Your task to perform on an android device: turn pop-ups off in chrome Image 0: 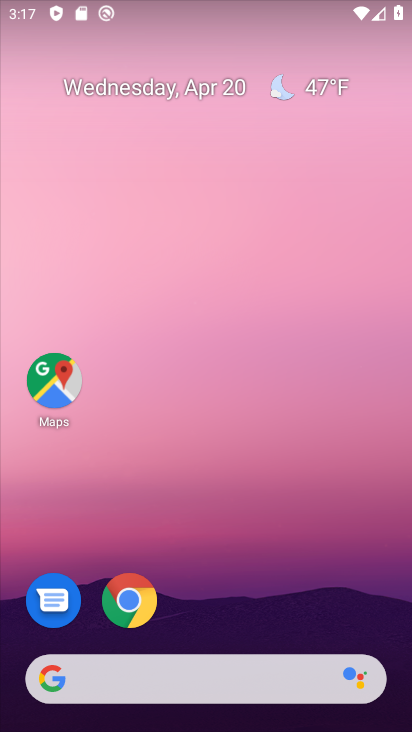
Step 0: drag from (317, 564) to (398, 97)
Your task to perform on an android device: turn pop-ups off in chrome Image 1: 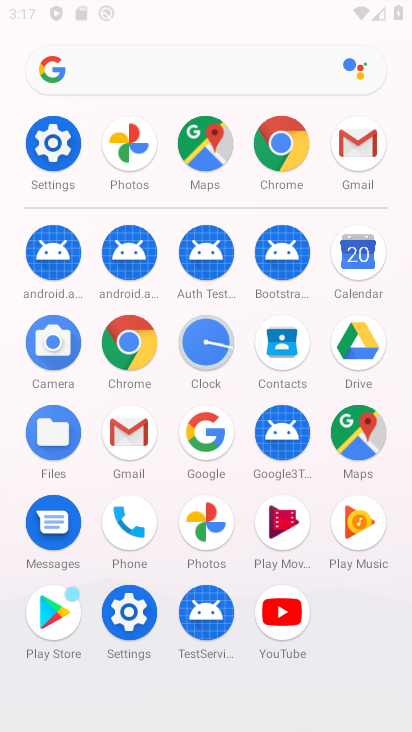
Step 1: click (287, 147)
Your task to perform on an android device: turn pop-ups off in chrome Image 2: 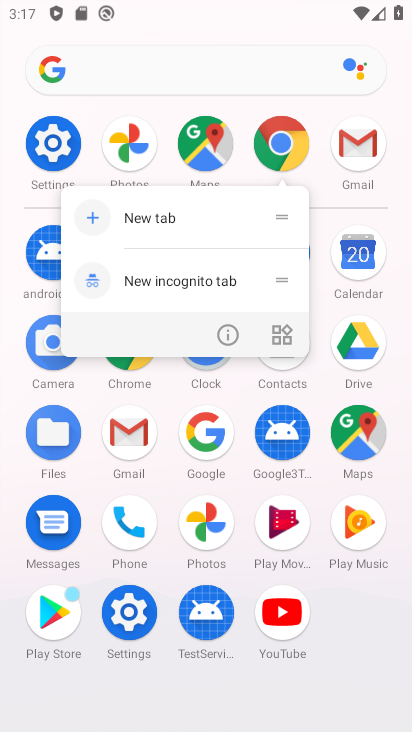
Step 2: click (279, 144)
Your task to perform on an android device: turn pop-ups off in chrome Image 3: 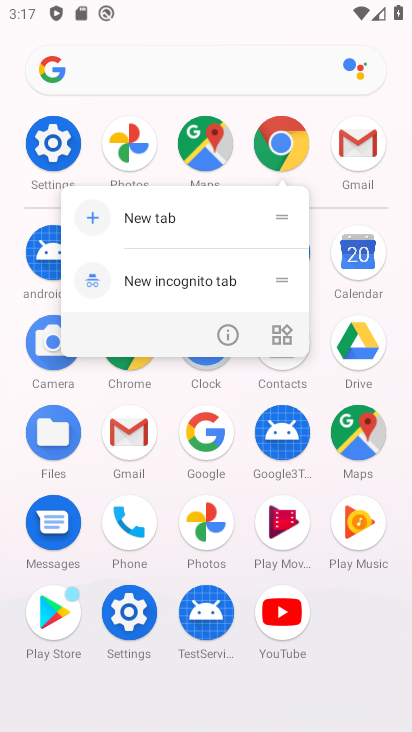
Step 3: click (280, 144)
Your task to perform on an android device: turn pop-ups off in chrome Image 4: 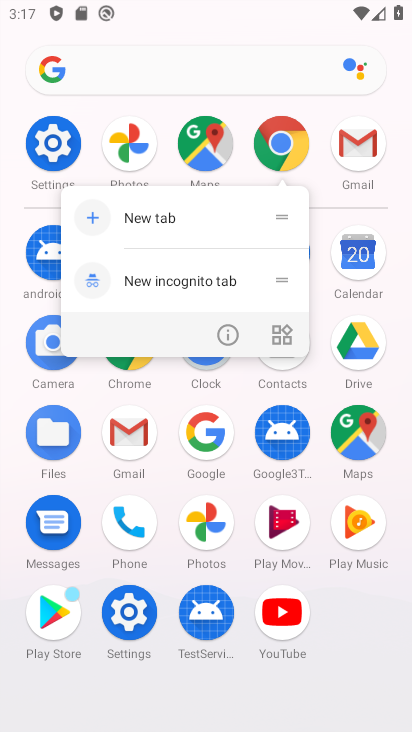
Step 4: click (280, 144)
Your task to perform on an android device: turn pop-ups off in chrome Image 5: 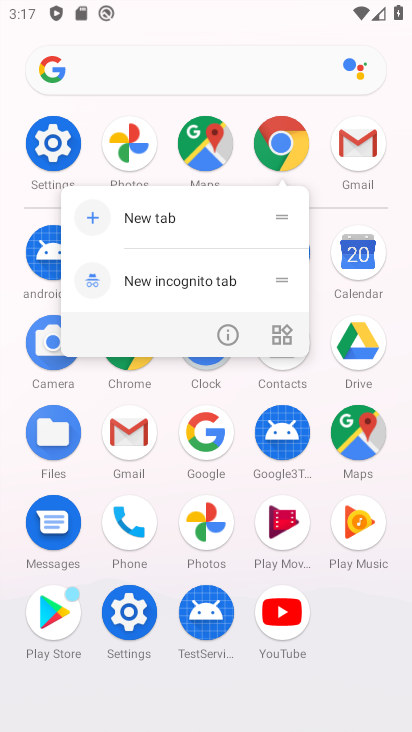
Step 5: click (280, 144)
Your task to perform on an android device: turn pop-ups off in chrome Image 6: 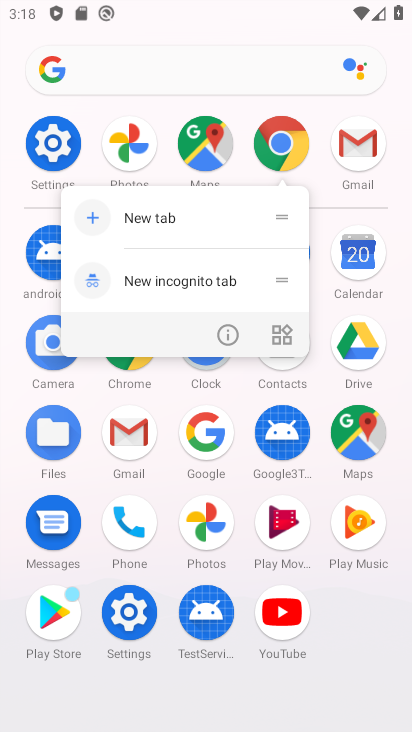
Step 6: click (280, 144)
Your task to perform on an android device: turn pop-ups off in chrome Image 7: 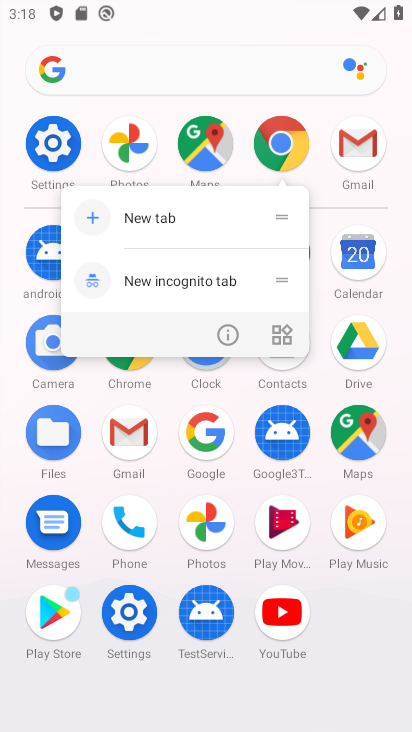
Step 7: click (279, 146)
Your task to perform on an android device: turn pop-ups off in chrome Image 8: 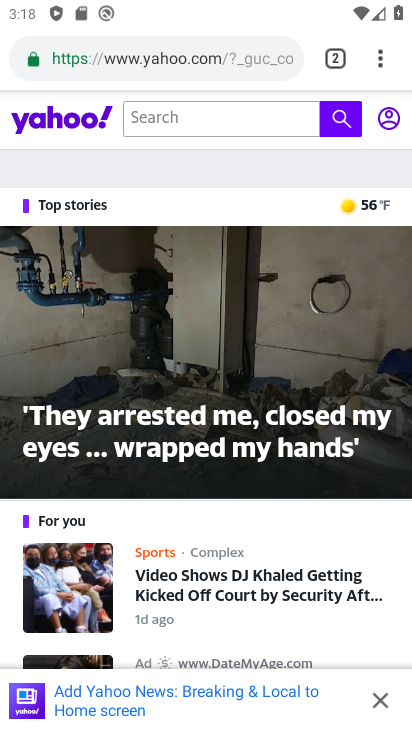
Step 8: drag from (369, 65) to (183, 625)
Your task to perform on an android device: turn pop-ups off in chrome Image 9: 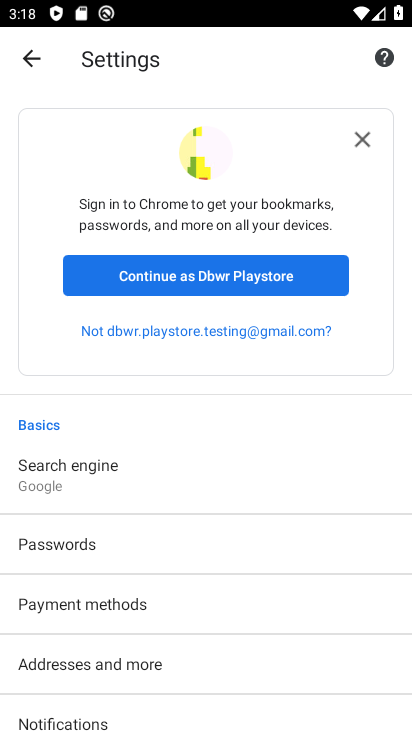
Step 9: drag from (238, 604) to (258, 289)
Your task to perform on an android device: turn pop-ups off in chrome Image 10: 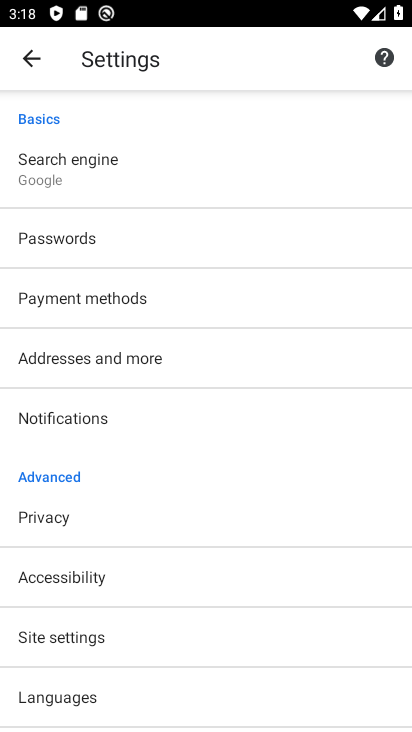
Step 10: click (90, 635)
Your task to perform on an android device: turn pop-ups off in chrome Image 11: 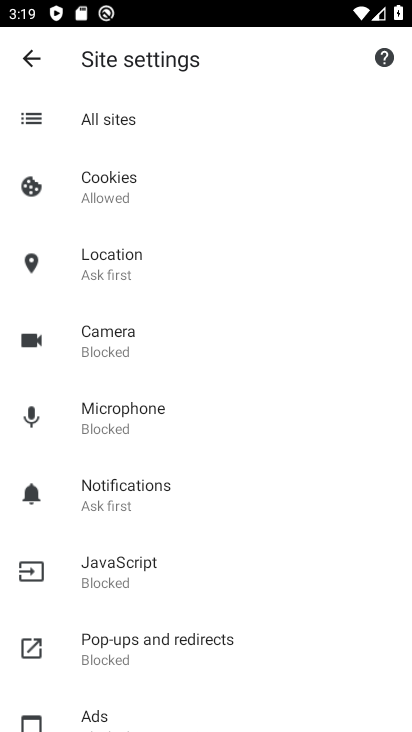
Step 11: drag from (256, 583) to (280, 271)
Your task to perform on an android device: turn pop-ups off in chrome Image 12: 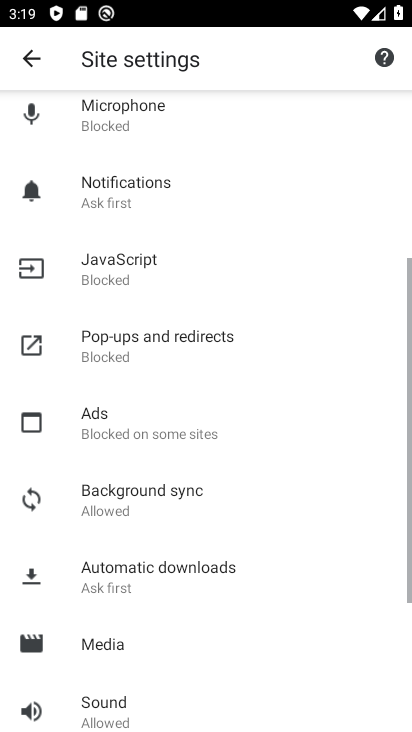
Step 12: click (176, 348)
Your task to perform on an android device: turn pop-ups off in chrome Image 13: 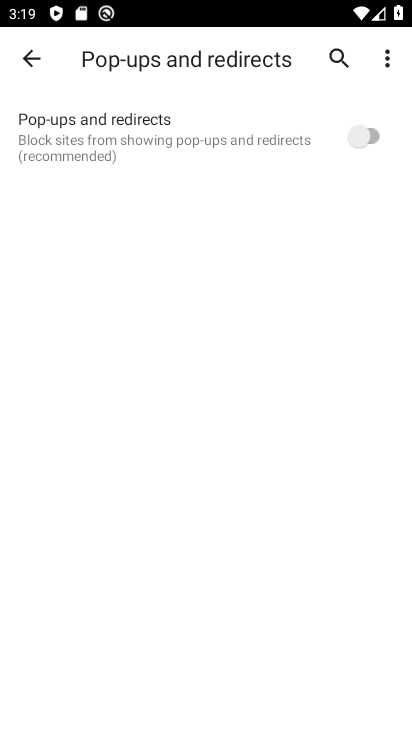
Step 13: task complete